Your task to perform on an android device: Open Google Image 0: 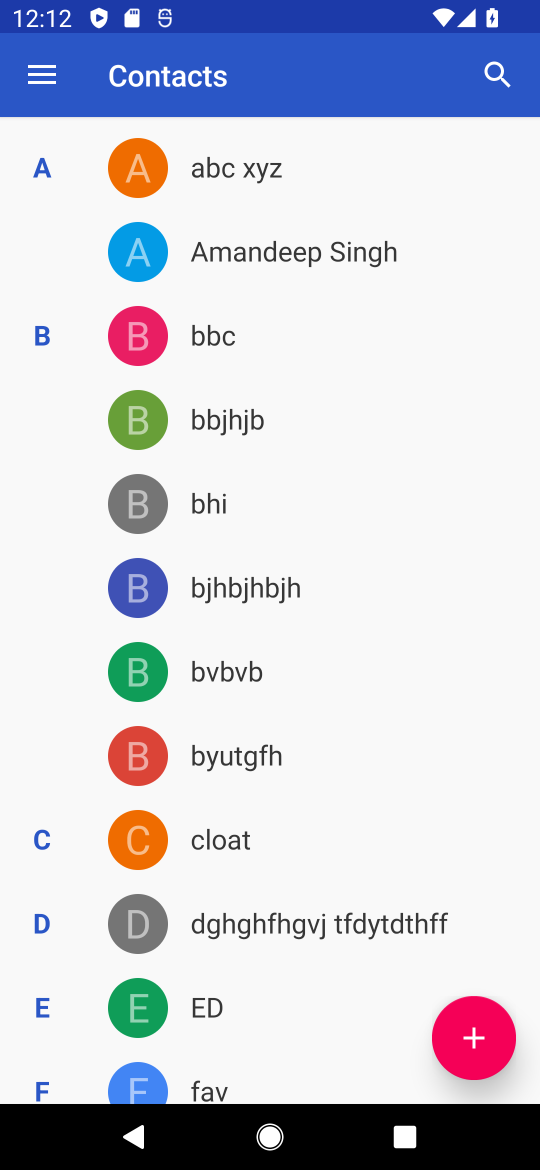
Step 0: press back button
Your task to perform on an android device: Open Google Image 1: 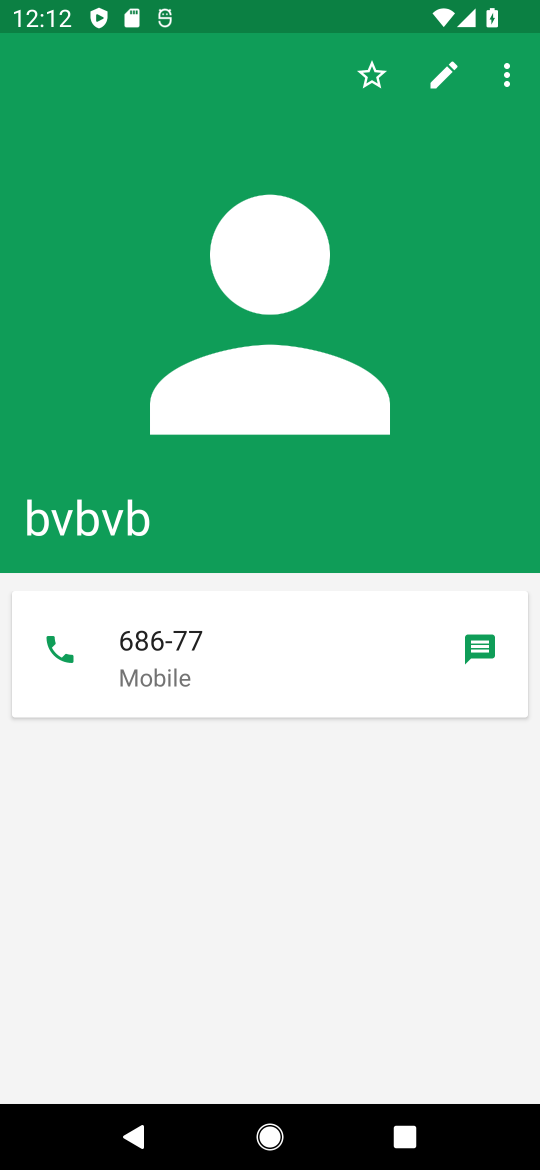
Step 1: press back button
Your task to perform on an android device: Open Google Image 2: 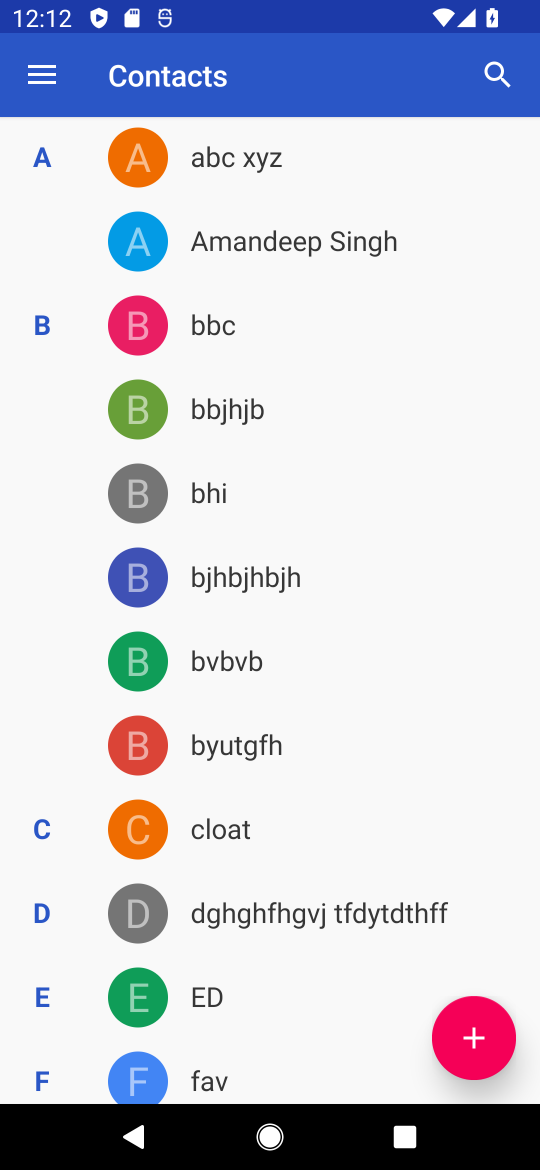
Step 2: press back button
Your task to perform on an android device: Open Google Image 3: 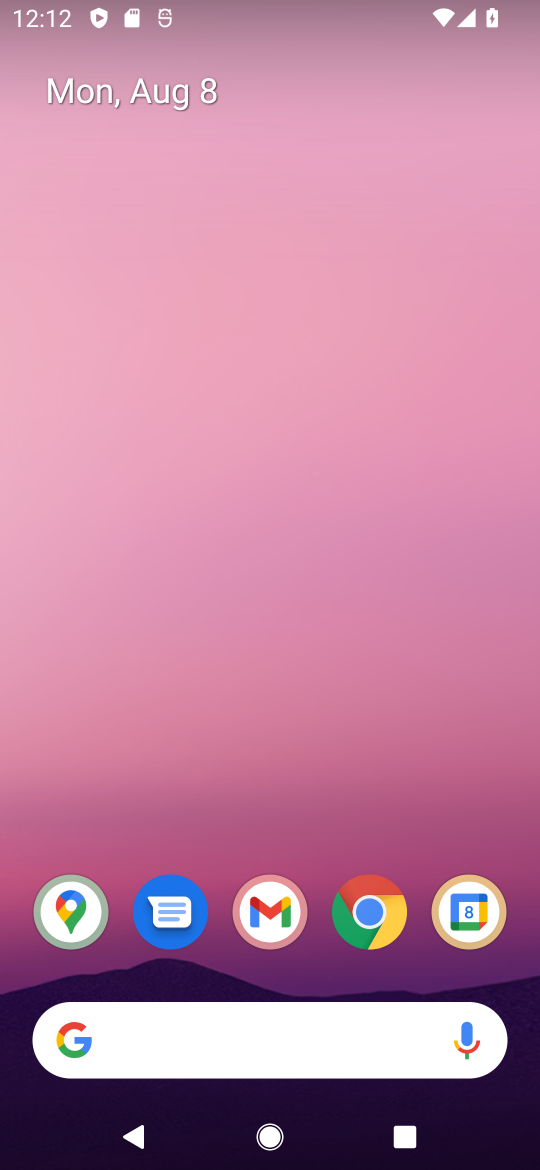
Step 3: drag from (275, 987) to (392, 49)
Your task to perform on an android device: Open Google Image 4: 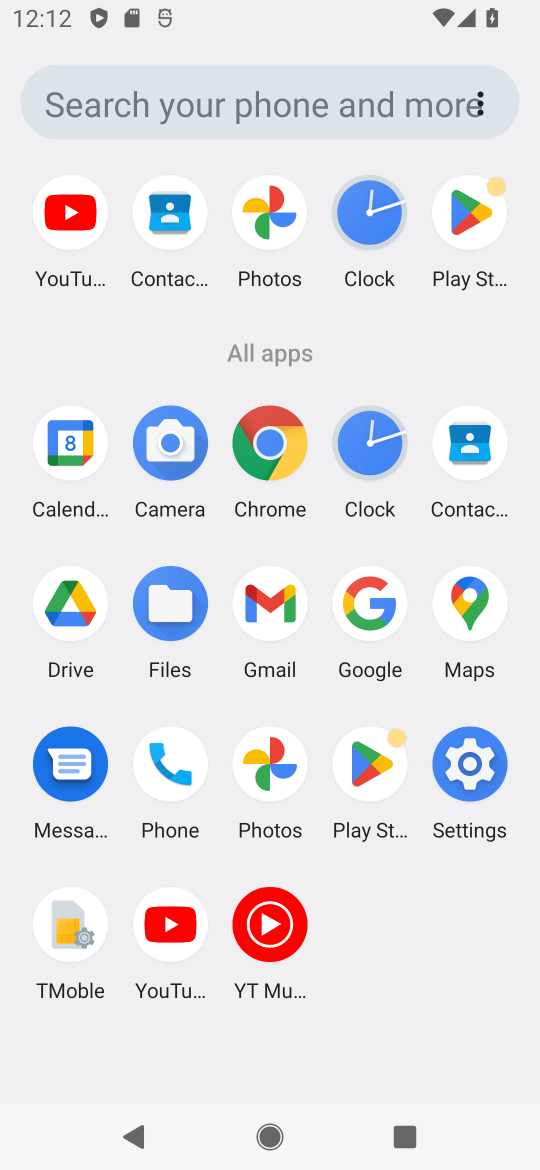
Step 4: click (377, 594)
Your task to perform on an android device: Open Google Image 5: 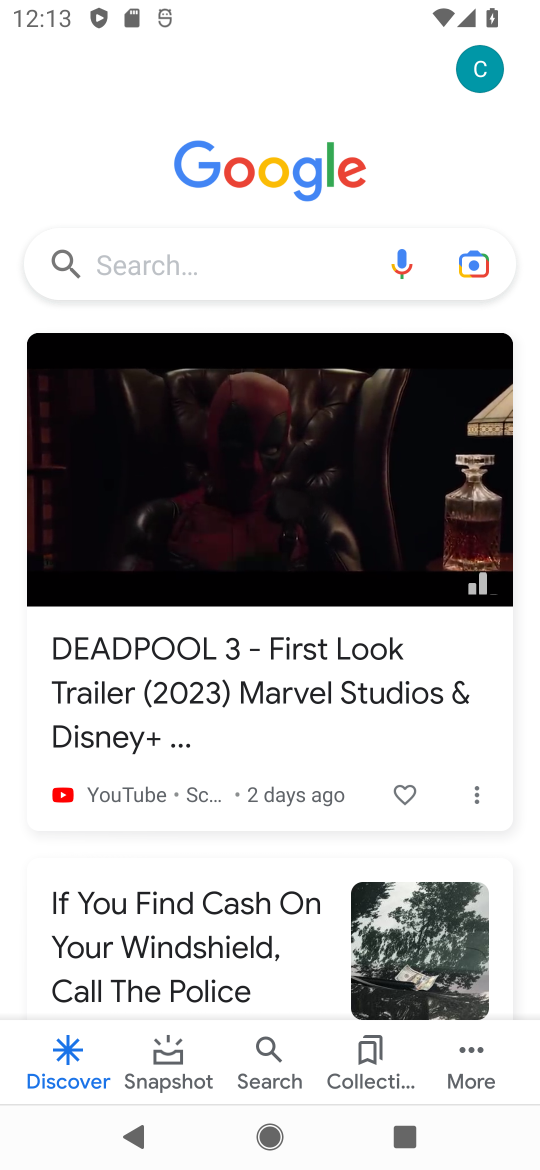
Step 5: task complete